Your task to perform on an android device: Go to Google Image 0: 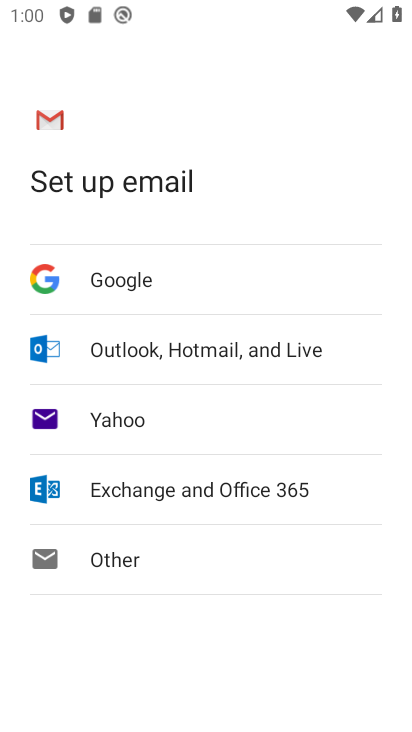
Step 0: press home button
Your task to perform on an android device: Go to Google Image 1: 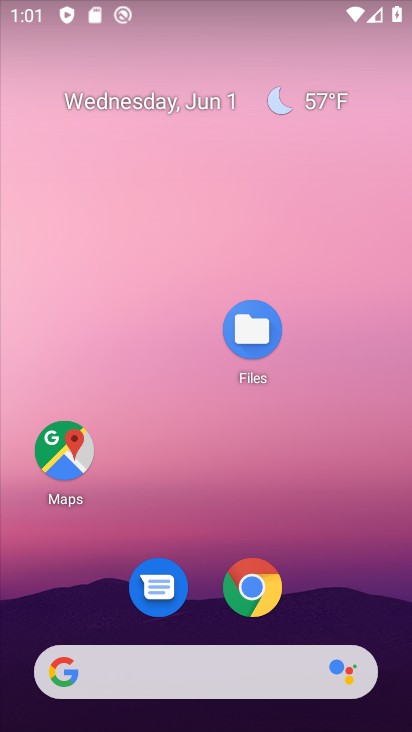
Step 1: drag from (211, 518) to (249, 78)
Your task to perform on an android device: Go to Google Image 2: 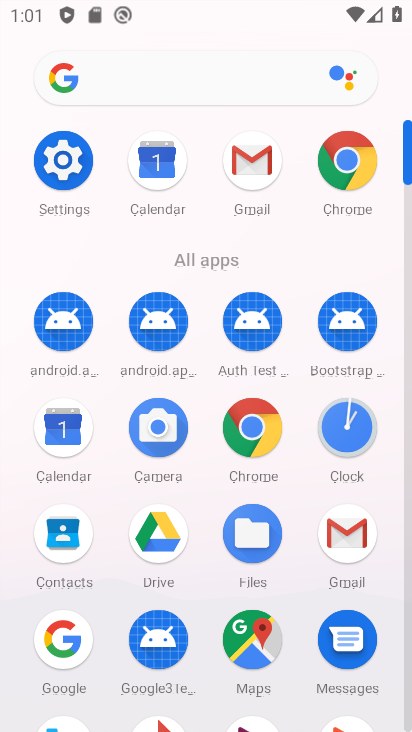
Step 2: click (408, 564)
Your task to perform on an android device: Go to Google Image 3: 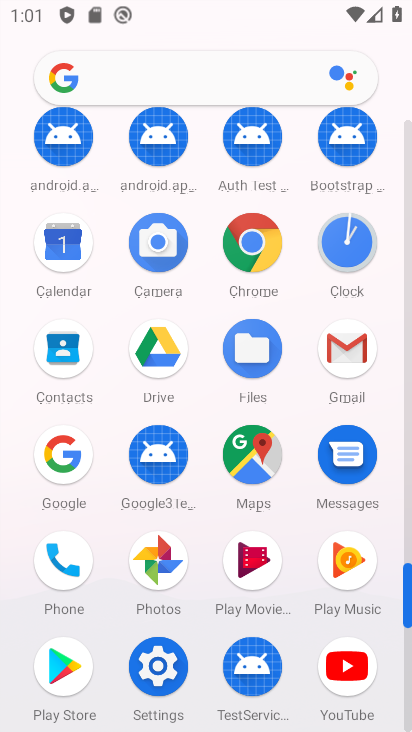
Step 3: click (68, 472)
Your task to perform on an android device: Go to Google Image 4: 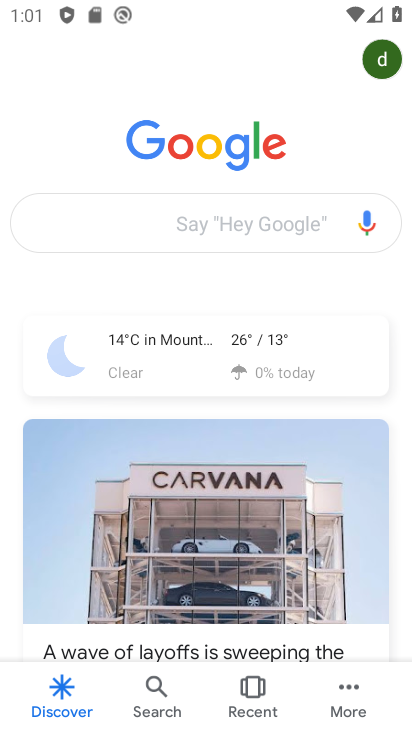
Step 4: task complete